Your task to perform on an android device: Go to Yahoo.com Image 0: 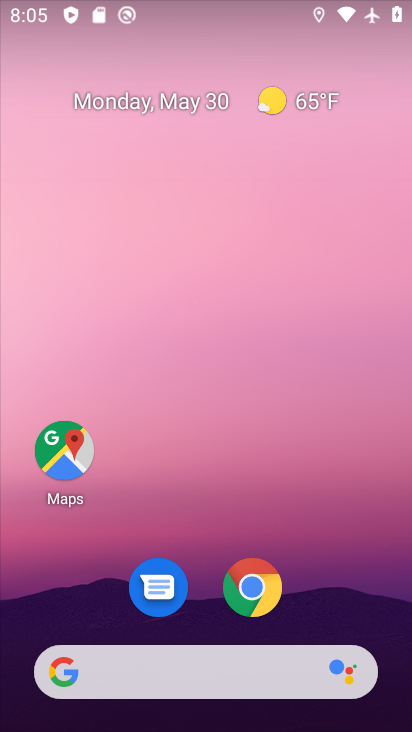
Step 0: click (261, 593)
Your task to perform on an android device: Go to Yahoo.com Image 1: 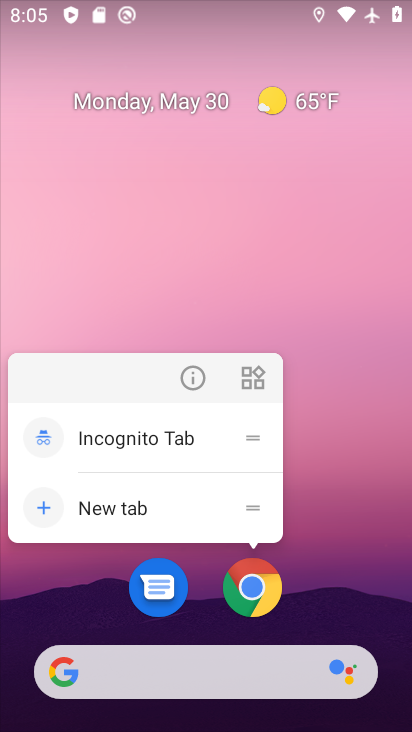
Step 1: click (246, 595)
Your task to perform on an android device: Go to Yahoo.com Image 2: 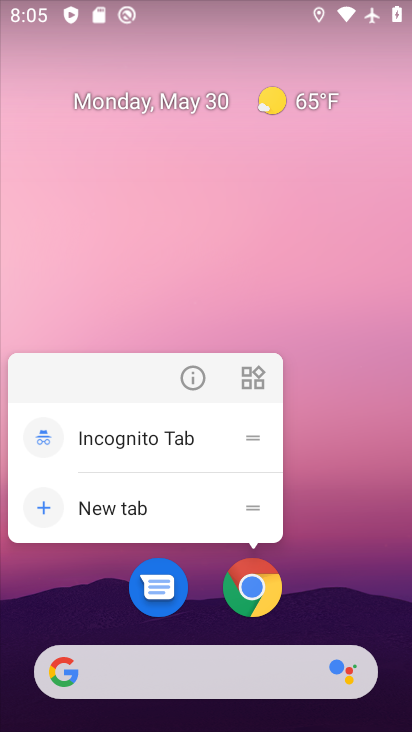
Step 2: click (255, 589)
Your task to perform on an android device: Go to Yahoo.com Image 3: 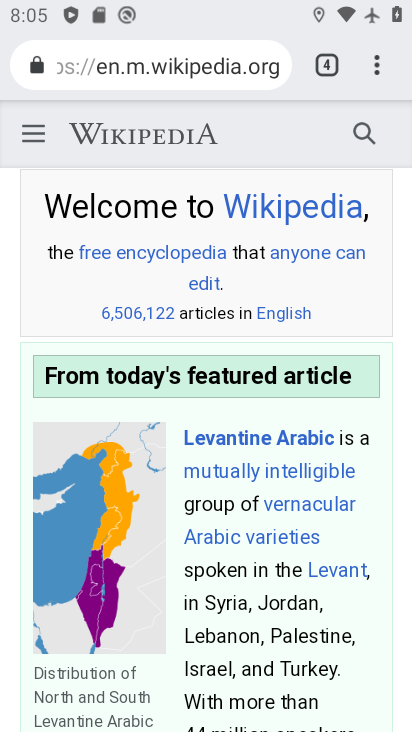
Step 3: drag from (370, 77) to (250, 132)
Your task to perform on an android device: Go to Yahoo.com Image 4: 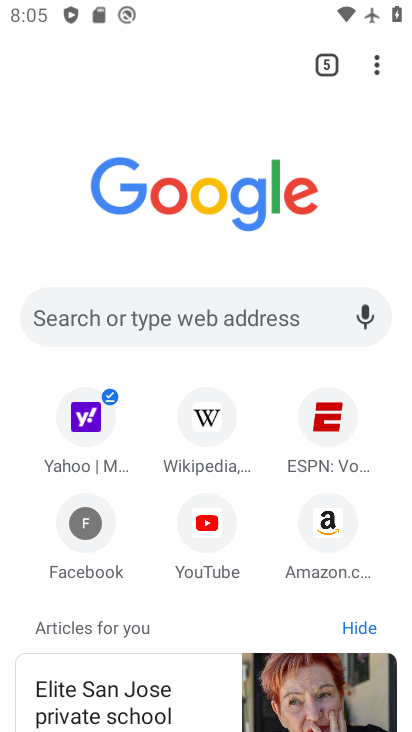
Step 4: click (88, 421)
Your task to perform on an android device: Go to Yahoo.com Image 5: 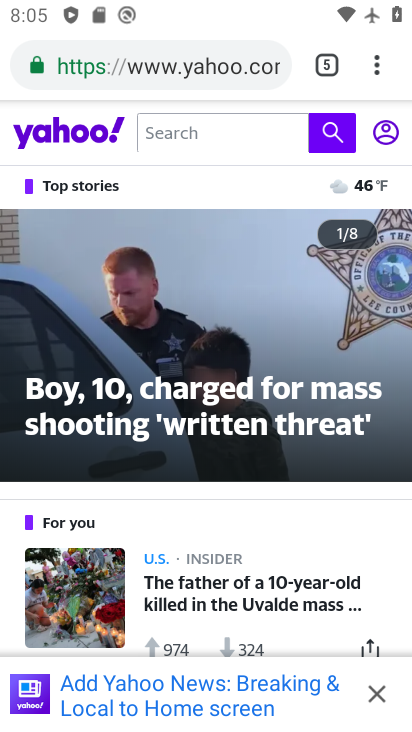
Step 5: task complete